Your task to perform on an android device: turn on the 24-hour format for clock Image 0: 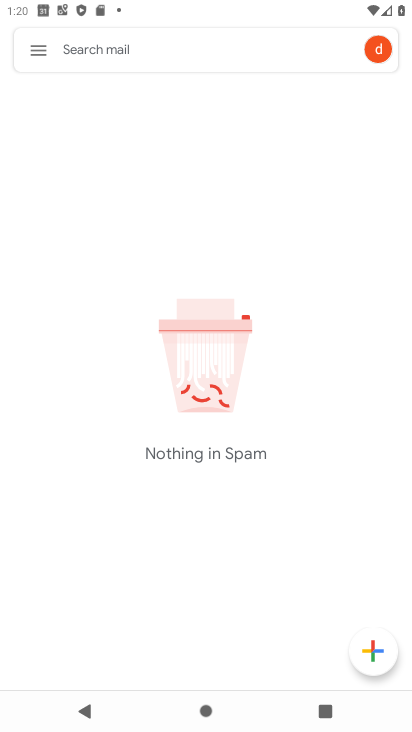
Step 0: press home button
Your task to perform on an android device: turn on the 24-hour format for clock Image 1: 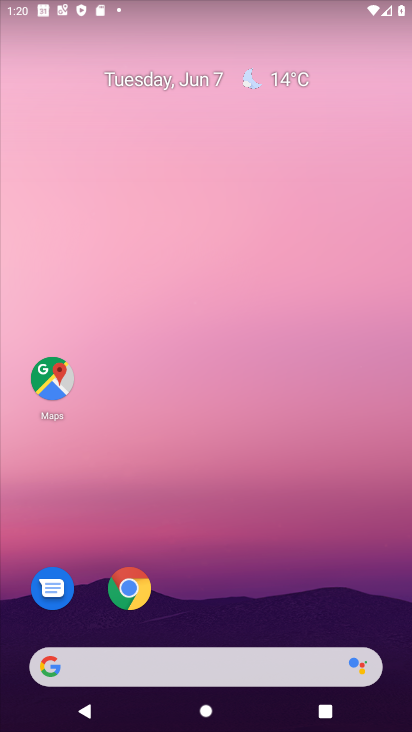
Step 1: drag from (314, 564) to (172, 46)
Your task to perform on an android device: turn on the 24-hour format for clock Image 2: 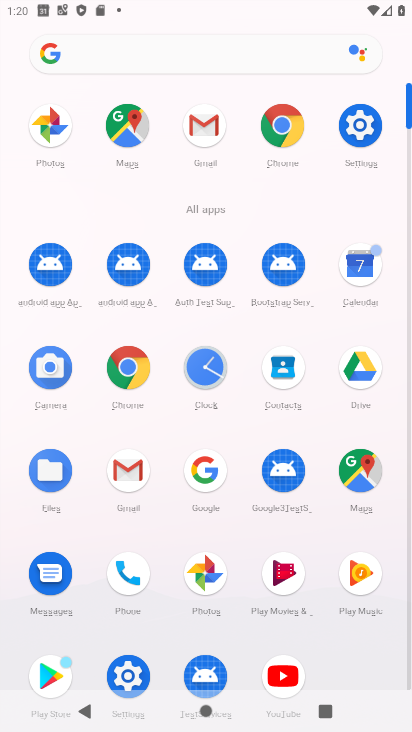
Step 2: click (201, 370)
Your task to perform on an android device: turn on the 24-hour format for clock Image 3: 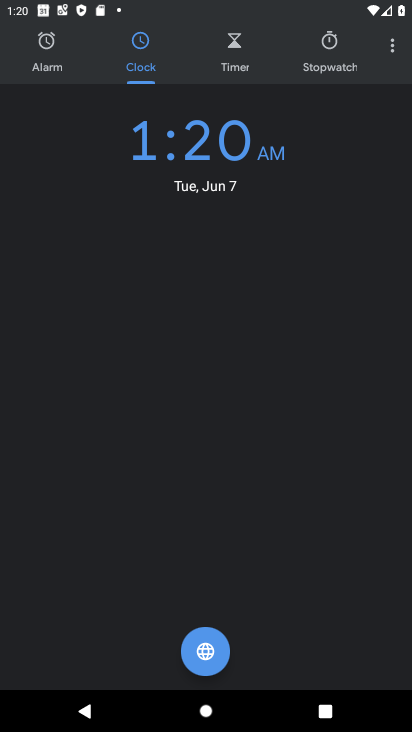
Step 3: click (395, 39)
Your task to perform on an android device: turn on the 24-hour format for clock Image 4: 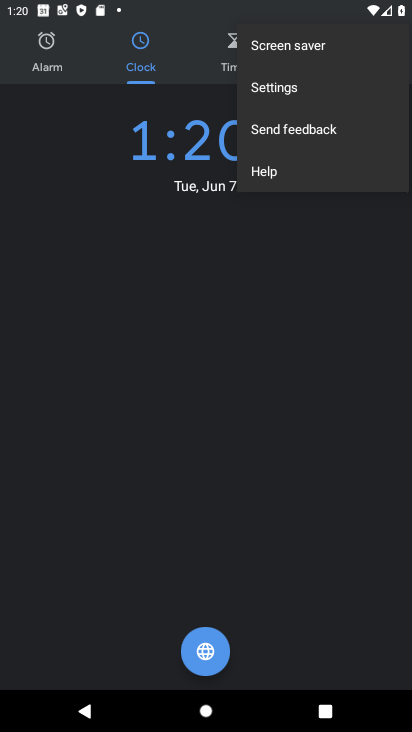
Step 4: click (314, 84)
Your task to perform on an android device: turn on the 24-hour format for clock Image 5: 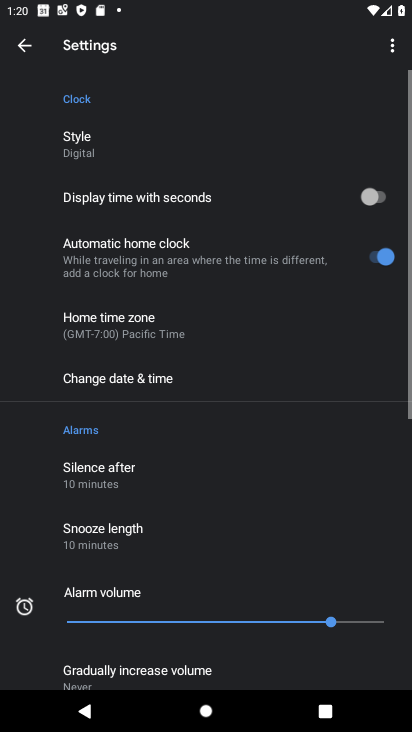
Step 5: click (223, 374)
Your task to perform on an android device: turn on the 24-hour format for clock Image 6: 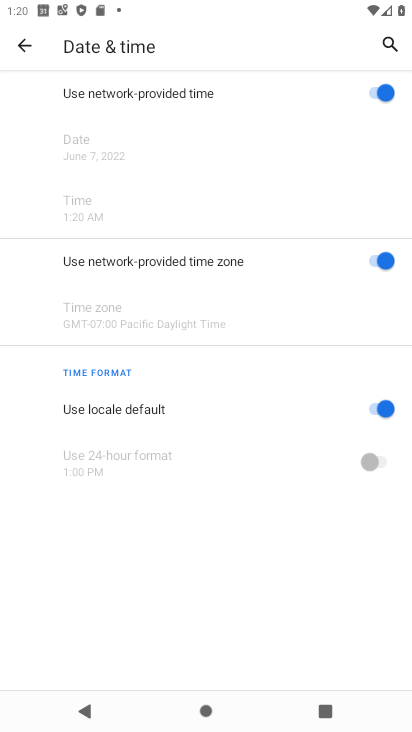
Step 6: click (385, 405)
Your task to perform on an android device: turn on the 24-hour format for clock Image 7: 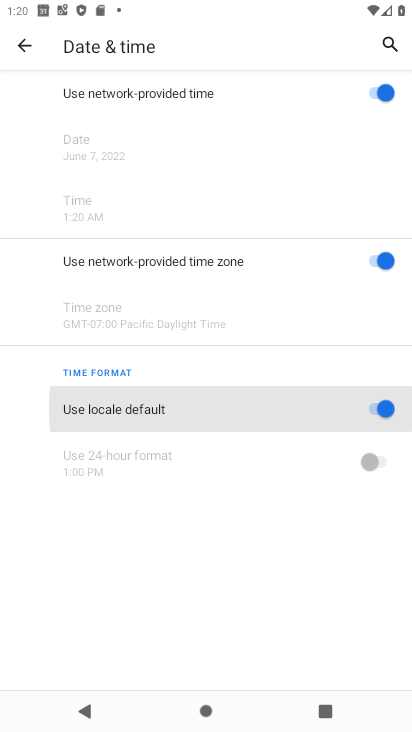
Step 7: click (371, 454)
Your task to perform on an android device: turn on the 24-hour format for clock Image 8: 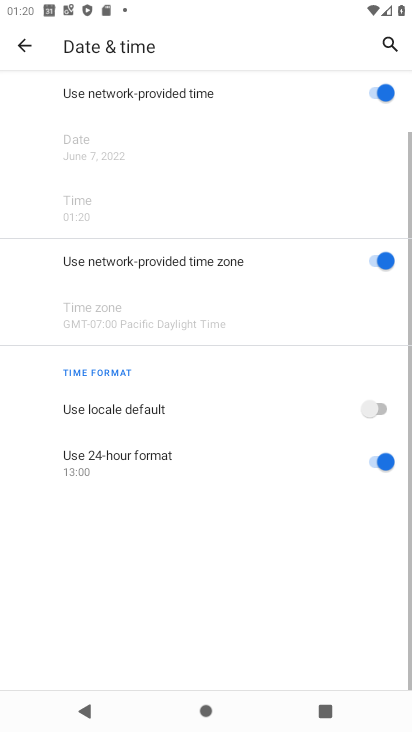
Step 8: task complete